Your task to perform on an android device: What's the weather today? Image 0: 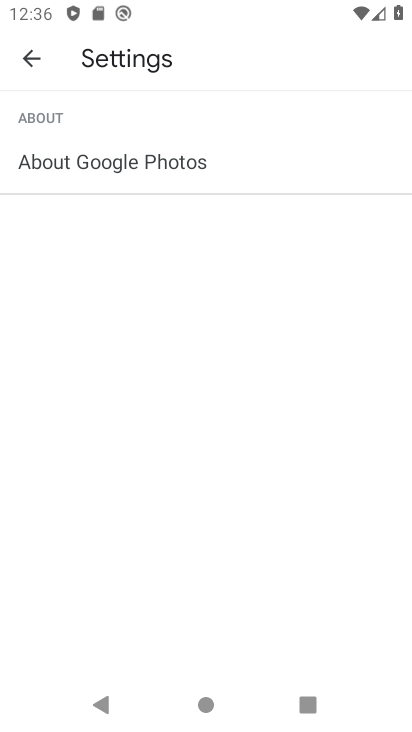
Step 0: press home button
Your task to perform on an android device: What's the weather today? Image 1: 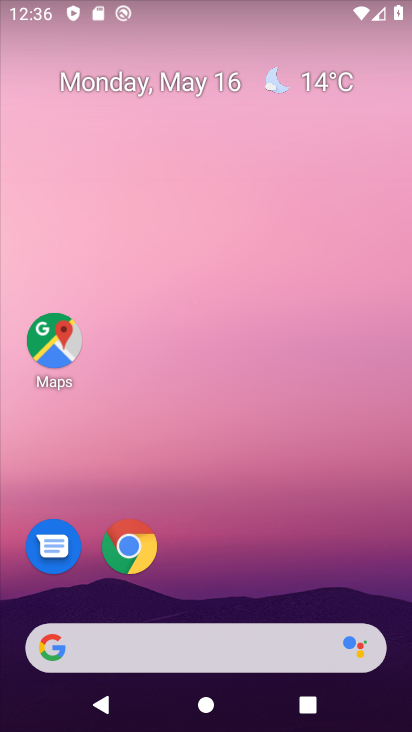
Step 1: drag from (275, 663) to (208, 143)
Your task to perform on an android device: What's the weather today? Image 2: 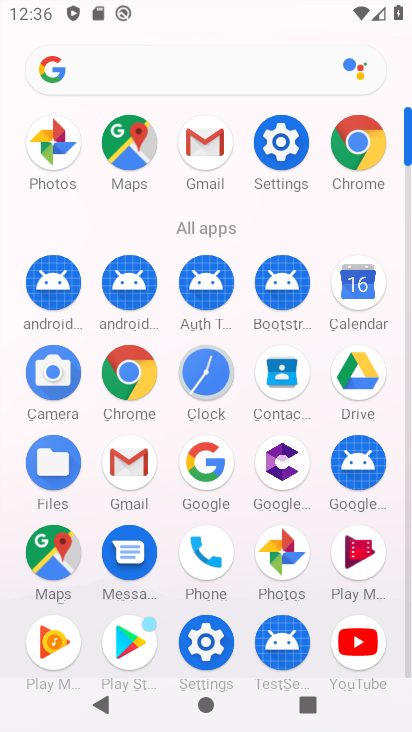
Step 2: click (138, 75)
Your task to perform on an android device: What's the weather today? Image 3: 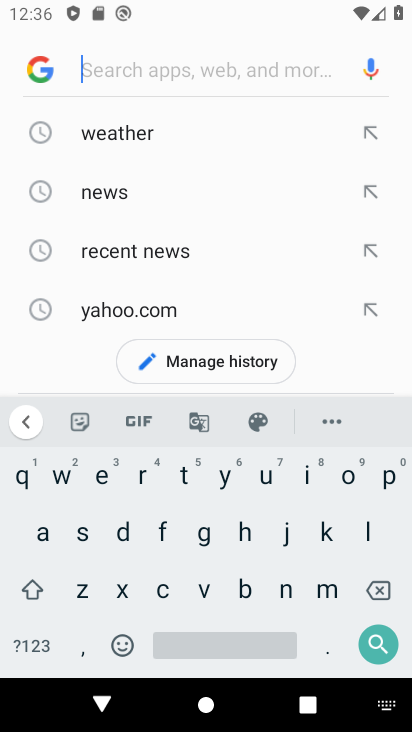
Step 3: click (182, 133)
Your task to perform on an android device: What's the weather today? Image 4: 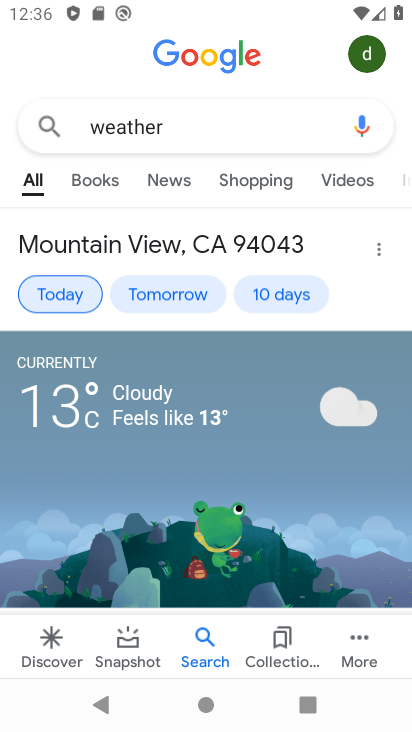
Step 4: task complete